Your task to perform on an android device: snooze an email in the gmail app Image 0: 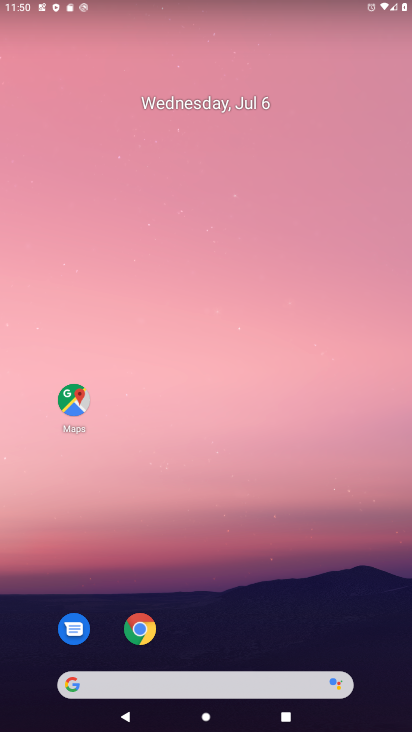
Step 0: drag from (192, 599) to (229, 79)
Your task to perform on an android device: snooze an email in the gmail app Image 1: 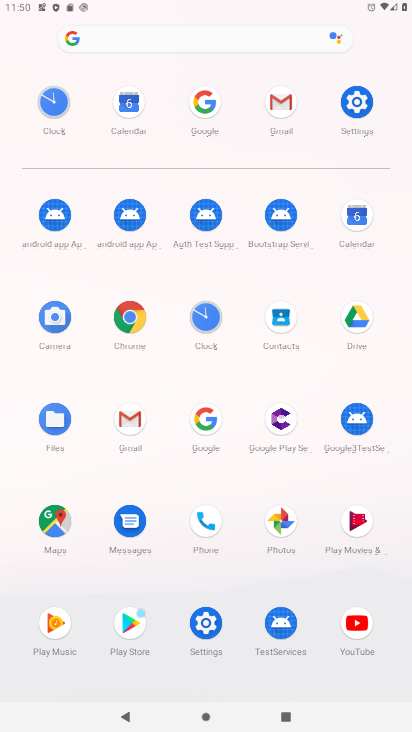
Step 1: click (277, 130)
Your task to perform on an android device: snooze an email in the gmail app Image 2: 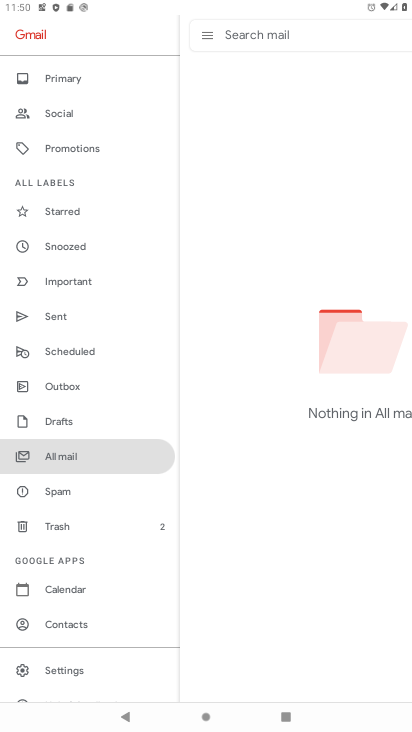
Step 2: click (78, 454)
Your task to perform on an android device: snooze an email in the gmail app Image 3: 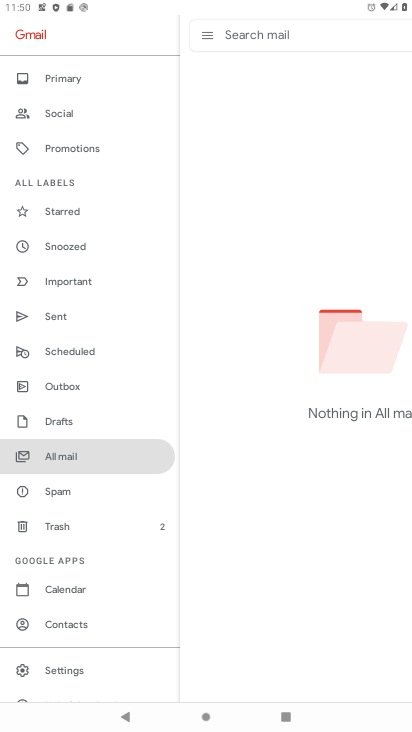
Step 3: task complete